Your task to perform on an android device: all mails in gmail Image 0: 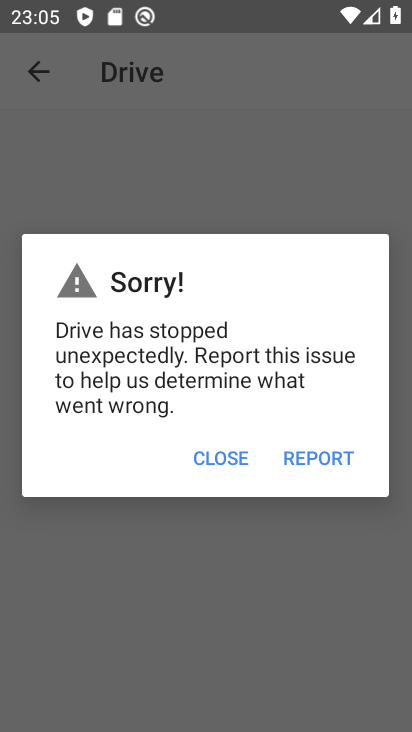
Step 0: press home button
Your task to perform on an android device: all mails in gmail Image 1: 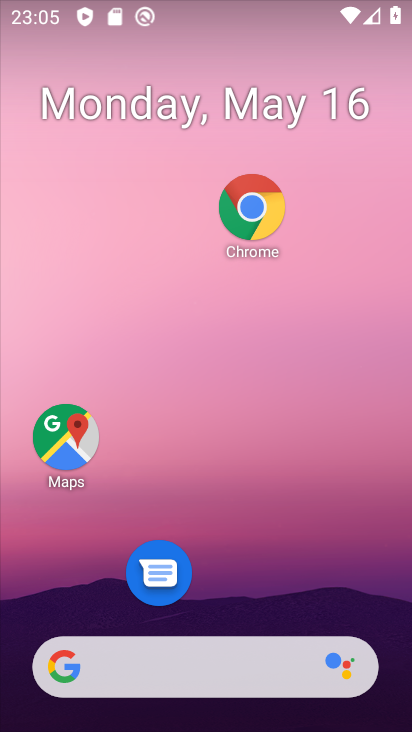
Step 1: drag from (195, 657) to (266, 125)
Your task to perform on an android device: all mails in gmail Image 2: 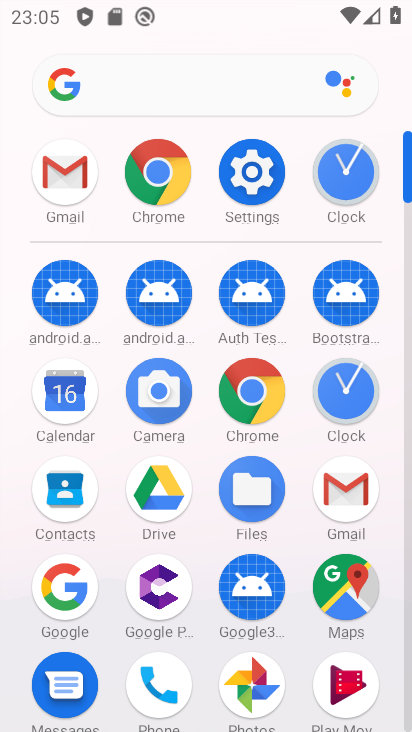
Step 2: click (70, 166)
Your task to perform on an android device: all mails in gmail Image 3: 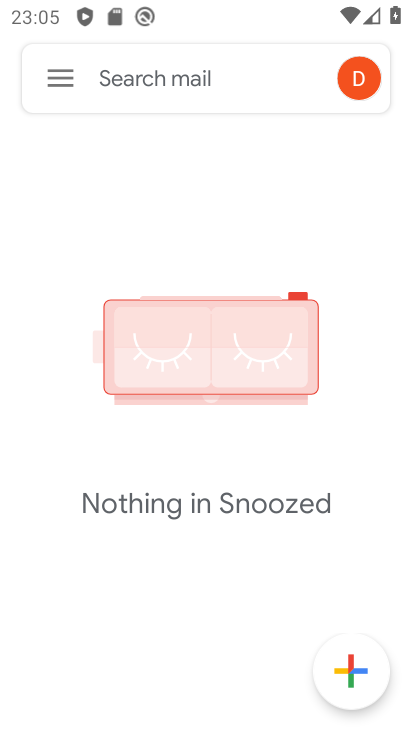
Step 3: click (54, 79)
Your task to perform on an android device: all mails in gmail Image 4: 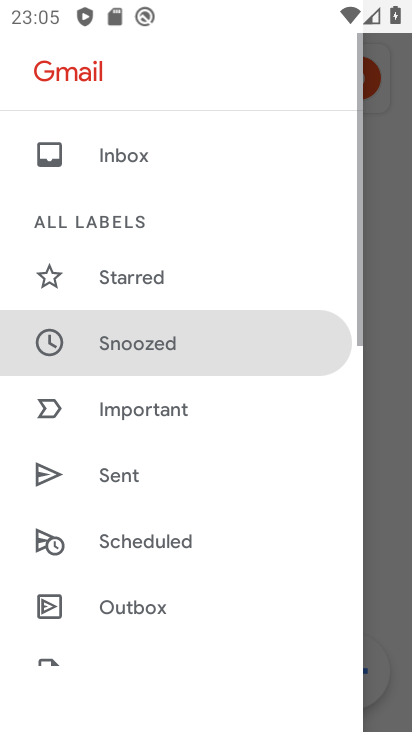
Step 4: drag from (172, 568) to (238, 114)
Your task to perform on an android device: all mails in gmail Image 5: 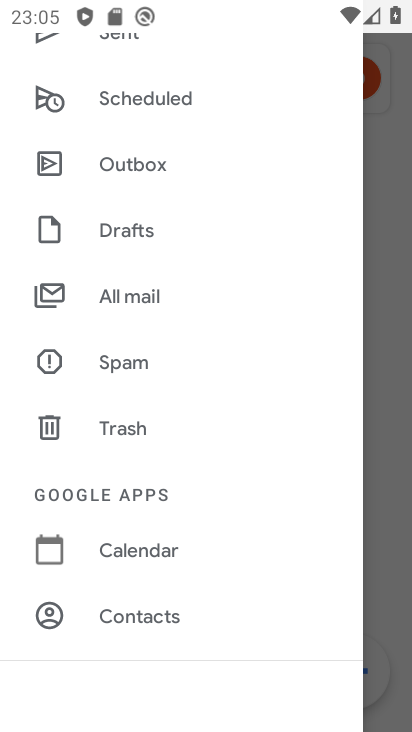
Step 5: click (149, 294)
Your task to perform on an android device: all mails in gmail Image 6: 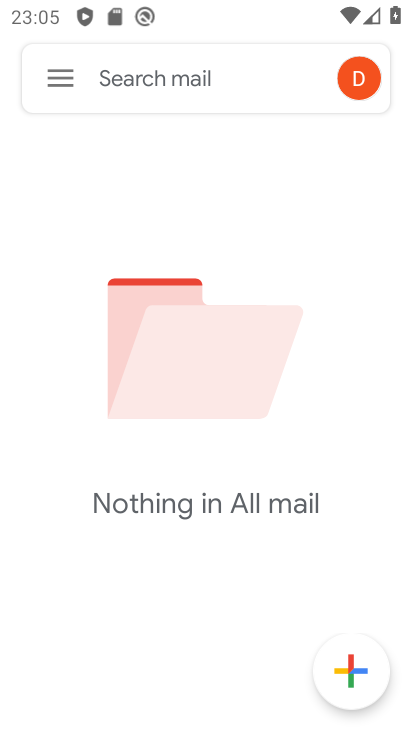
Step 6: task complete